Your task to perform on an android device: add a label to a message in the gmail app Image 0: 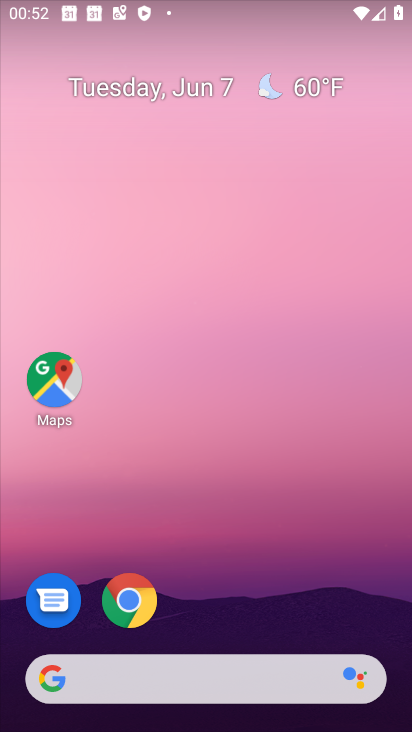
Step 0: drag from (210, 719) to (222, 134)
Your task to perform on an android device: add a label to a message in the gmail app Image 1: 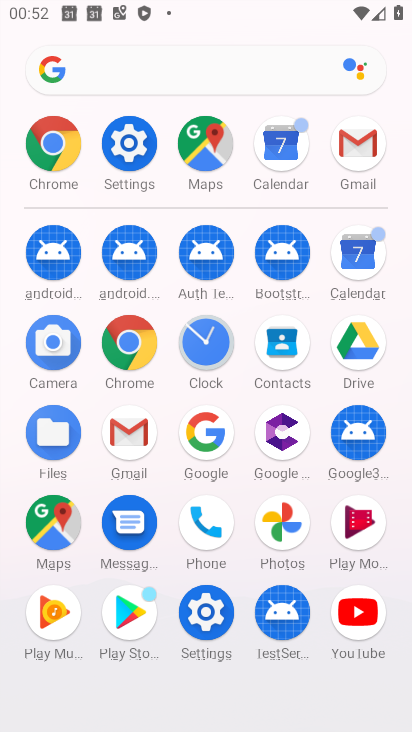
Step 1: click (137, 436)
Your task to perform on an android device: add a label to a message in the gmail app Image 2: 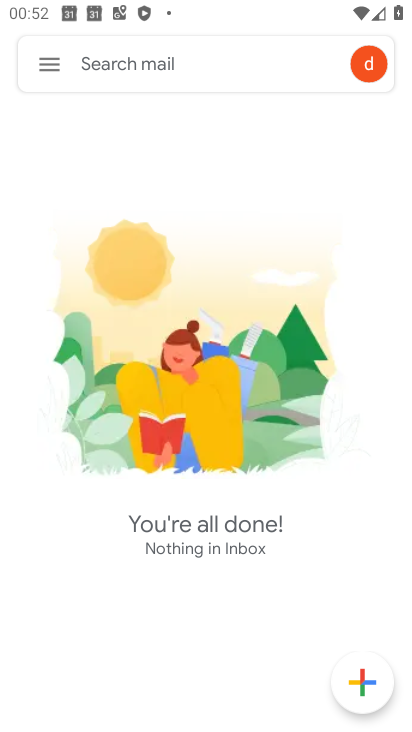
Step 2: task complete